Your task to perform on an android device: turn off airplane mode Image 0: 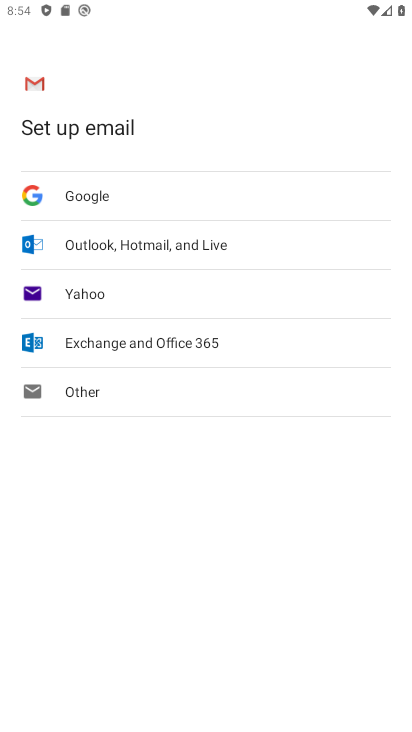
Step 0: press home button
Your task to perform on an android device: turn off airplane mode Image 1: 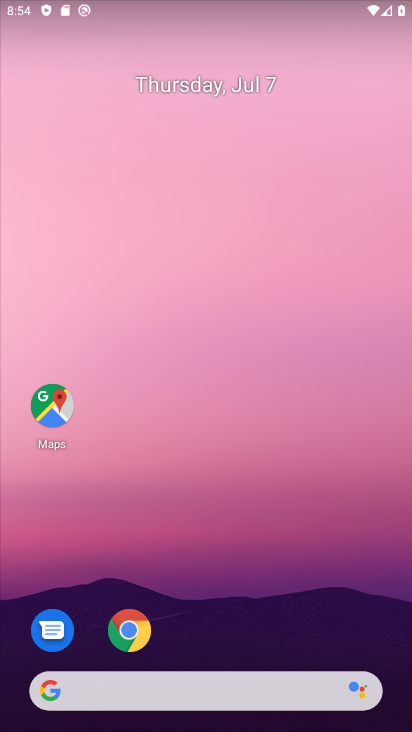
Step 1: drag from (193, 644) to (167, 172)
Your task to perform on an android device: turn off airplane mode Image 2: 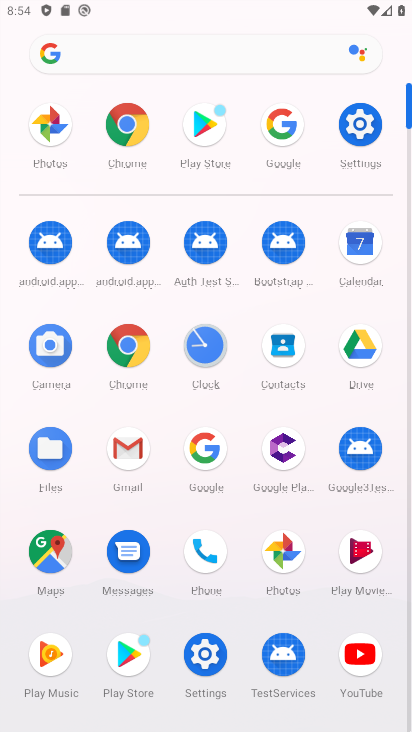
Step 2: click (367, 143)
Your task to perform on an android device: turn off airplane mode Image 3: 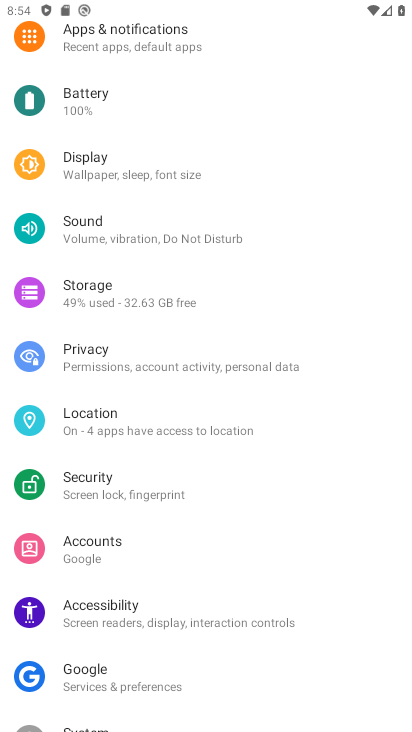
Step 3: drag from (234, 151) to (233, 531)
Your task to perform on an android device: turn off airplane mode Image 4: 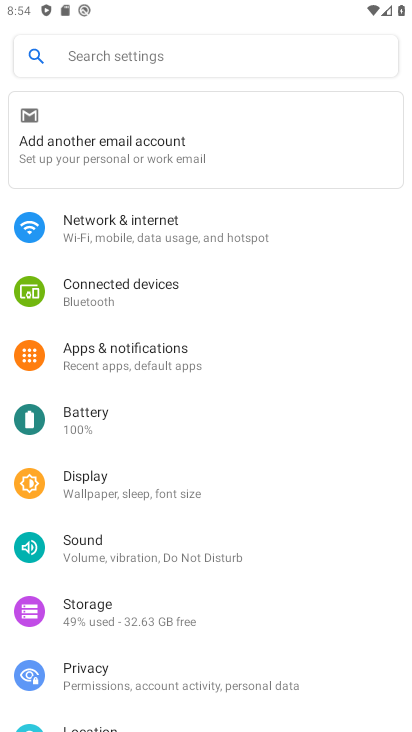
Step 4: click (154, 246)
Your task to perform on an android device: turn off airplane mode Image 5: 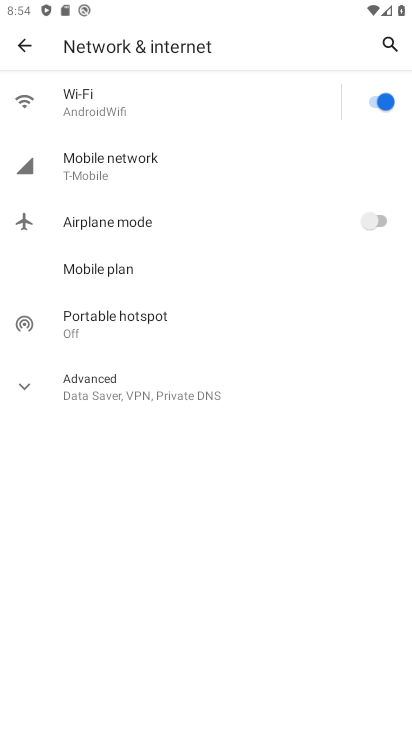
Step 5: task complete